Your task to perform on an android device: Go to calendar. Show me events next week Image 0: 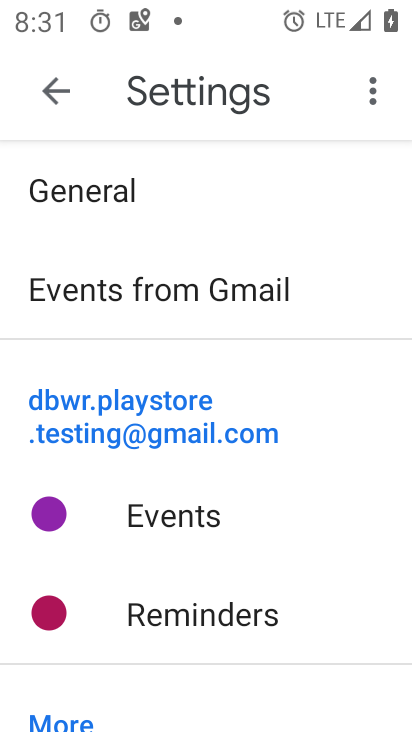
Step 0: press home button
Your task to perform on an android device: Go to calendar. Show me events next week Image 1: 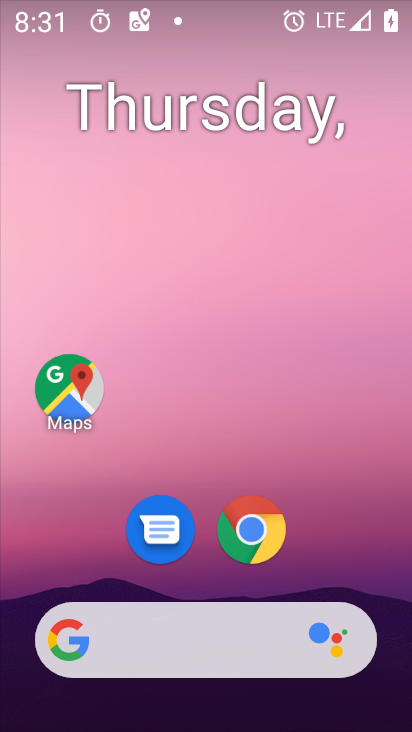
Step 1: drag from (390, 582) to (390, 303)
Your task to perform on an android device: Go to calendar. Show me events next week Image 2: 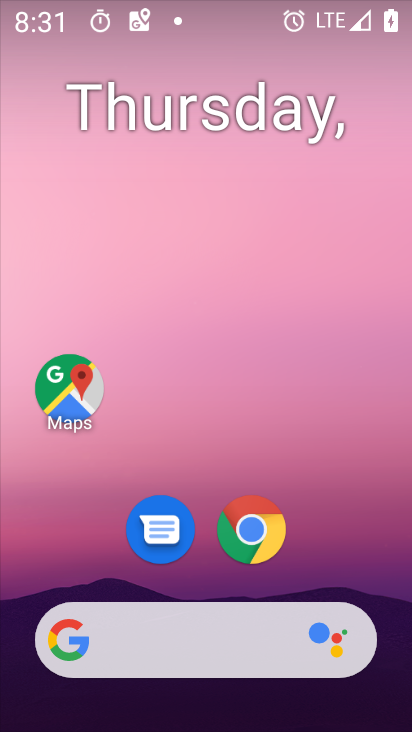
Step 2: drag from (382, 563) to (373, 163)
Your task to perform on an android device: Go to calendar. Show me events next week Image 3: 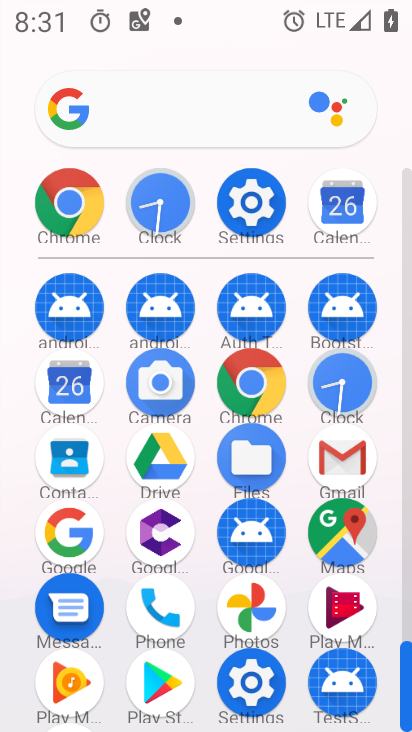
Step 3: click (351, 213)
Your task to perform on an android device: Go to calendar. Show me events next week Image 4: 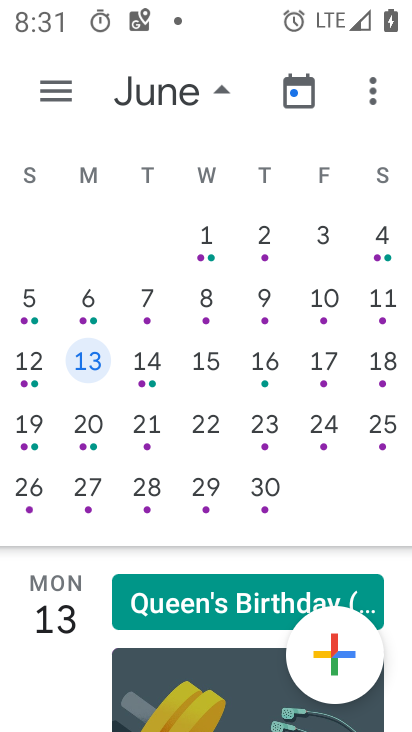
Step 4: drag from (53, 213) to (408, 239)
Your task to perform on an android device: Go to calendar. Show me events next week Image 5: 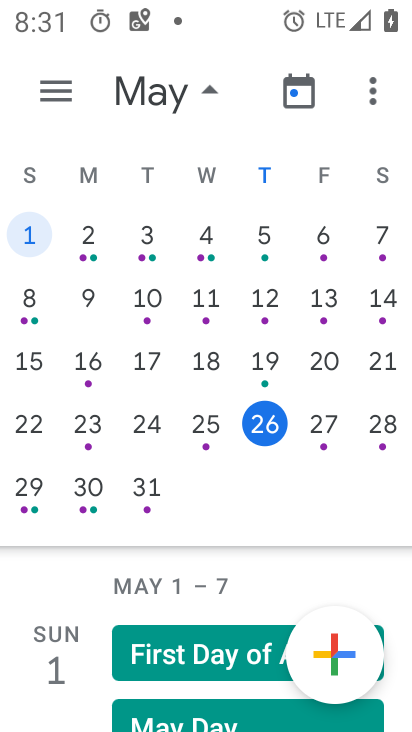
Step 5: click (102, 494)
Your task to perform on an android device: Go to calendar. Show me events next week Image 6: 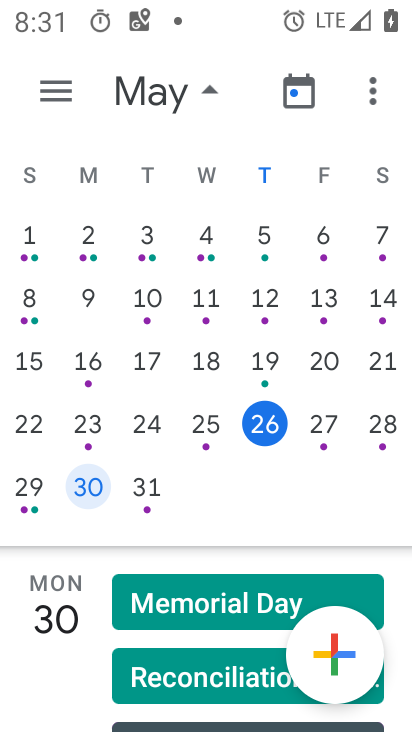
Step 6: drag from (314, 517) to (313, 187)
Your task to perform on an android device: Go to calendar. Show me events next week Image 7: 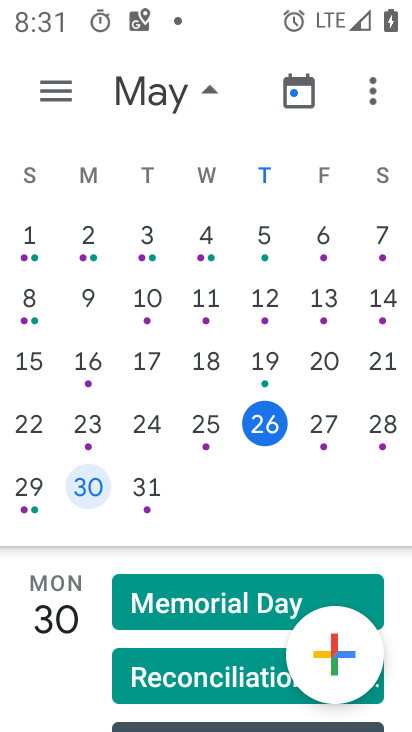
Step 7: drag from (283, 534) to (281, 194)
Your task to perform on an android device: Go to calendar. Show me events next week Image 8: 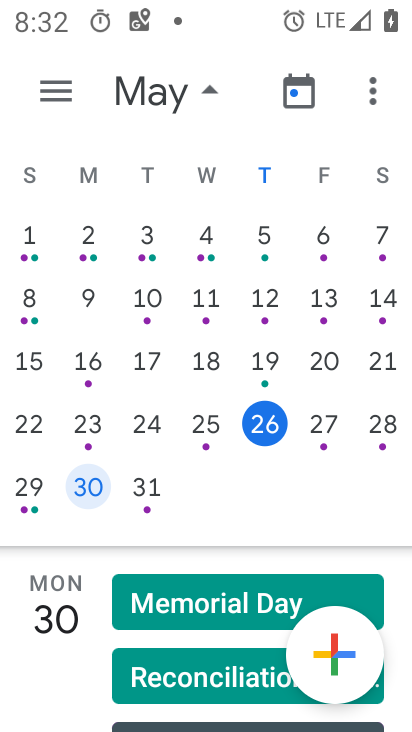
Step 8: click (215, 605)
Your task to perform on an android device: Go to calendar. Show me events next week Image 9: 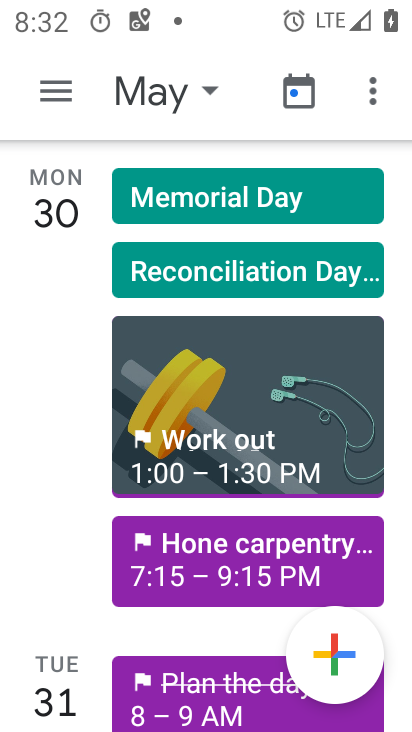
Step 9: click (228, 572)
Your task to perform on an android device: Go to calendar. Show me events next week Image 10: 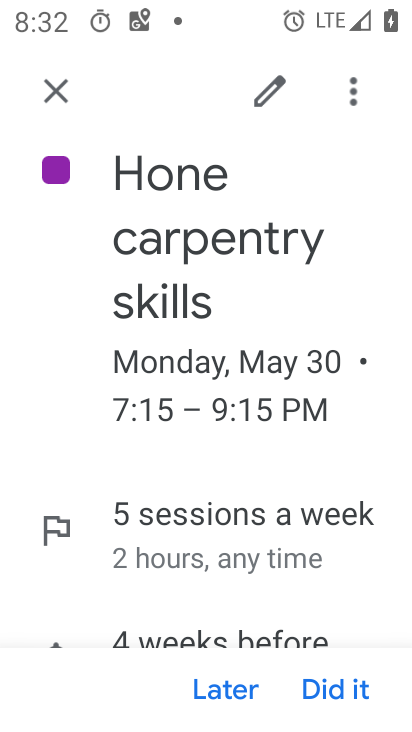
Step 10: task complete